Your task to perform on an android device: change the clock display to digital Image 0: 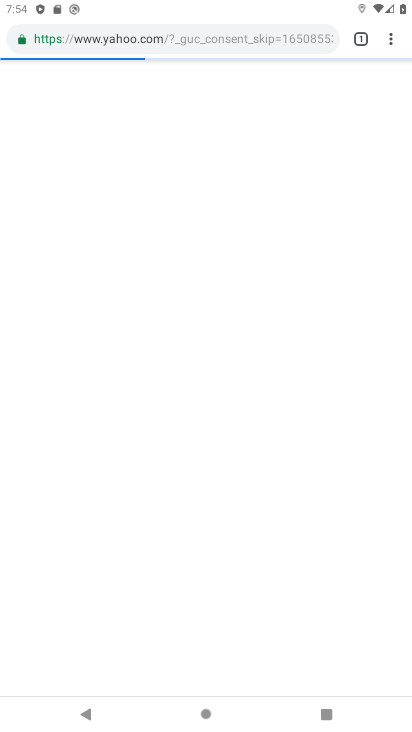
Step 0: press back button
Your task to perform on an android device: change the clock display to digital Image 1: 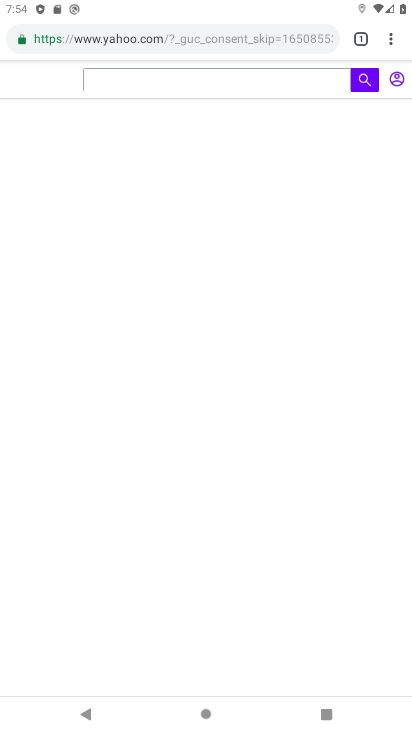
Step 1: press home button
Your task to perform on an android device: change the clock display to digital Image 2: 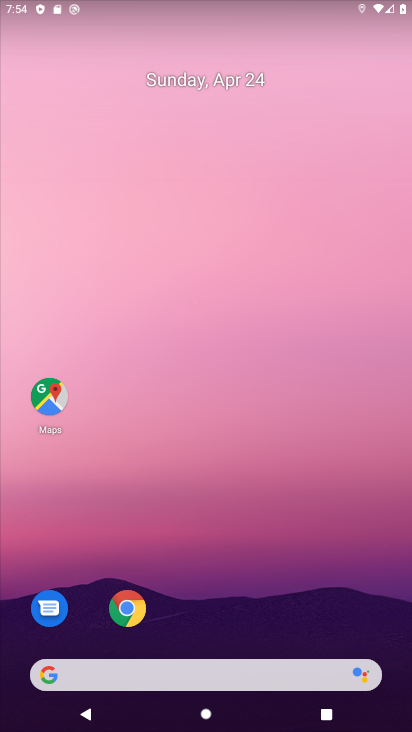
Step 2: drag from (187, 665) to (283, 49)
Your task to perform on an android device: change the clock display to digital Image 3: 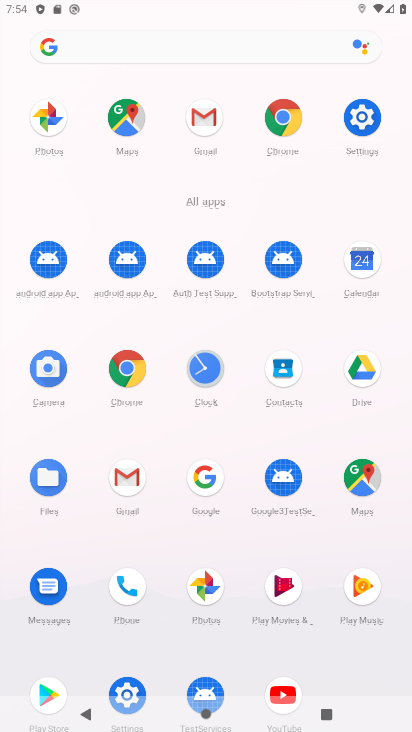
Step 3: click (208, 369)
Your task to perform on an android device: change the clock display to digital Image 4: 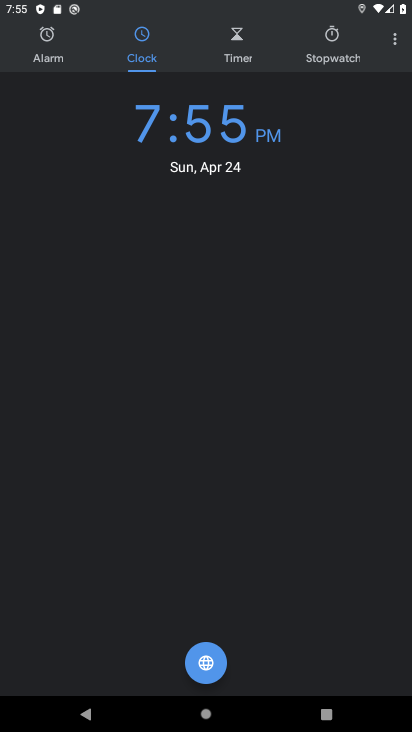
Step 4: click (396, 44)
Your task to perform on an android device: change the clock display to digital Image 5: 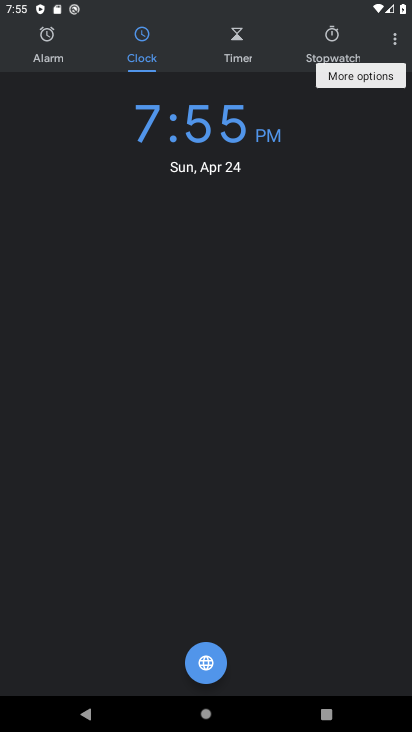
Step 5: click (388, 64)
Your task to perform on an android device: change the clock display to digital Image 6: 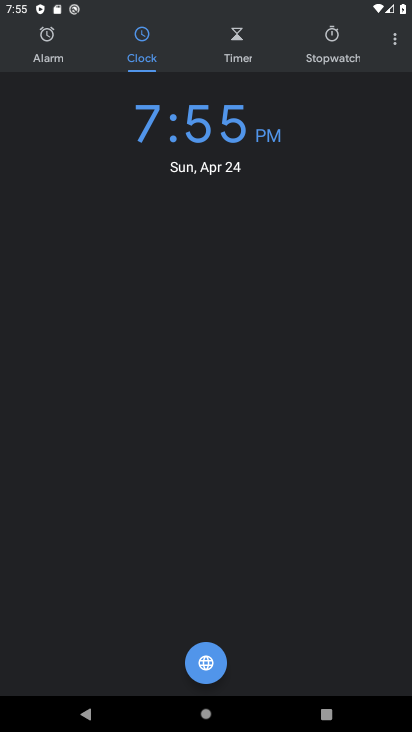
Step 6: click (388, 40)
Your task to perform on an android device: change the clock display to digital Image 7: 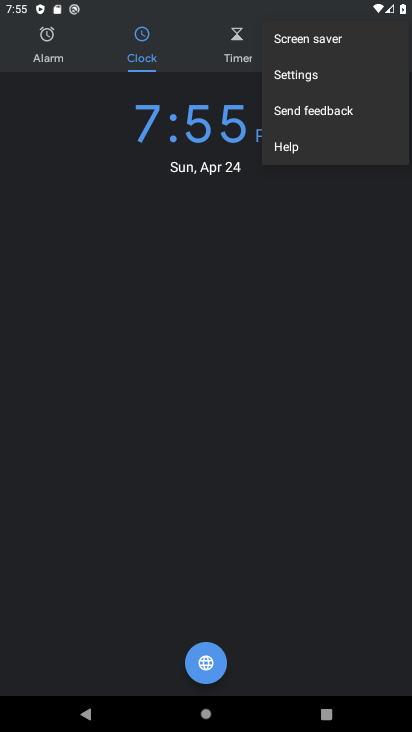
Step 7: click (351, 81)
Your task to perform on an android device: change the clock display to digital Image 8: 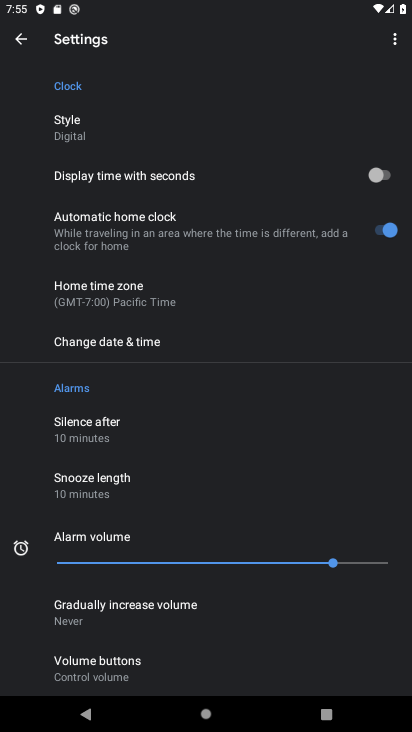
Step 8: task complete